Your task to perform on an android device: What's the weather today? Image 0: 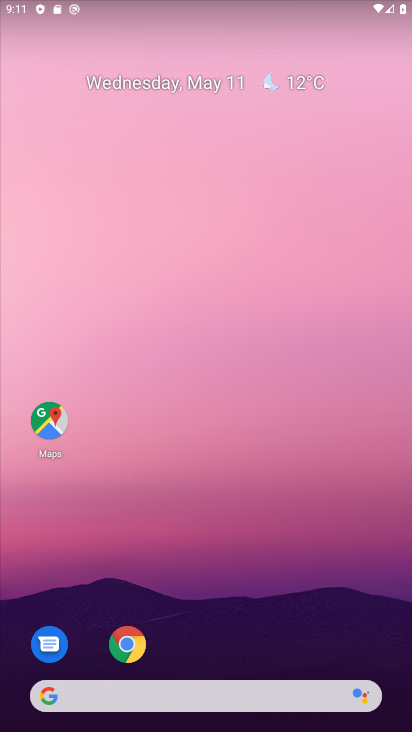
Step 0: drag from (225, 601) to (260, 217)
Your task to perform on an android device: What's the weather today? Image 1: 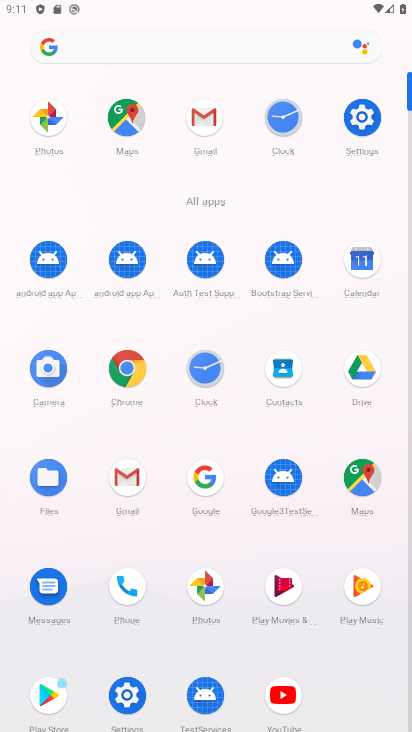
Step 1: click (371, 137)
Your task to perform on an android device: What's the weather today? Image 2: 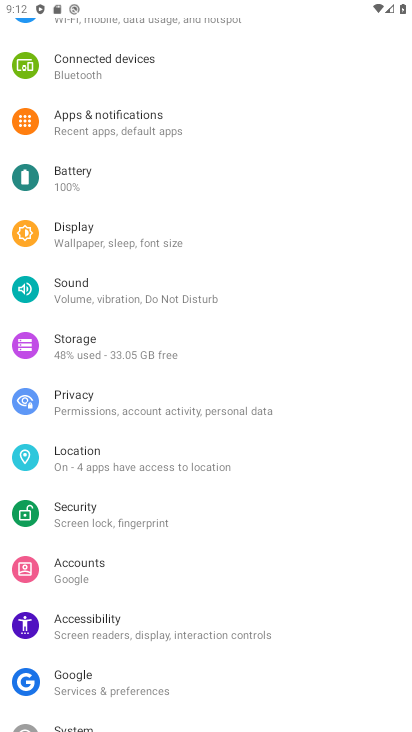
Step 2: press home button
Your task to perform on an android device: What's the weather today? Image 3: 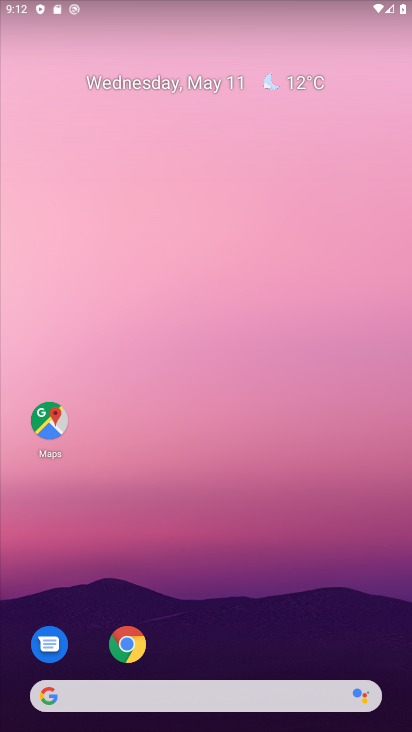
Step 3: drag from (238, 623) to (264, 28)
Your task to perform on an android device: What's the weather today? Image 4: 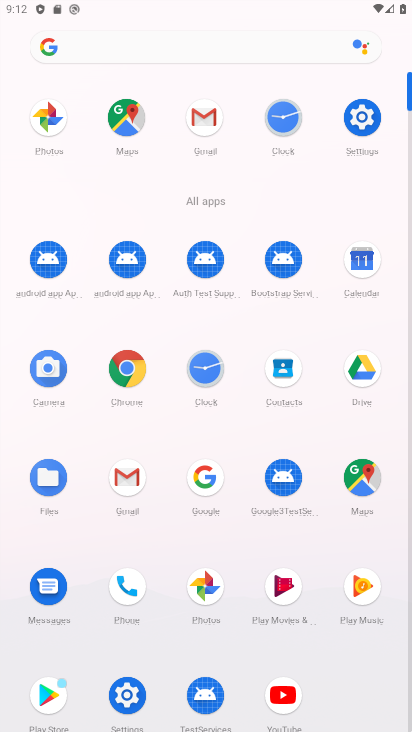
Step 4: click (220, 54)
Your task to perform on an android device: What's the weather today? Image 5: 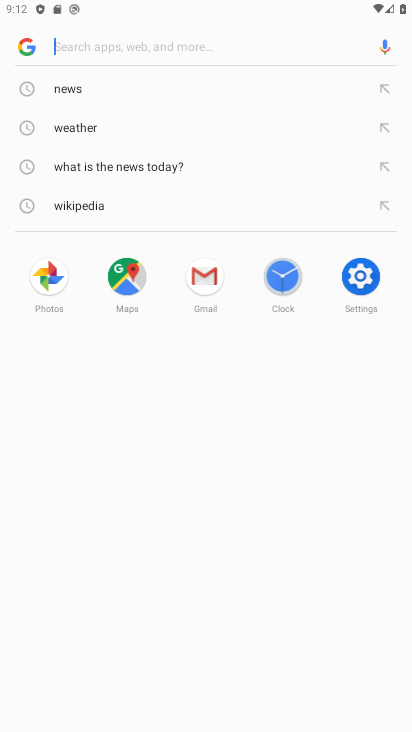
Step 5: click (168, 136)
Your task to perform on an android device: What's the weather today? Image 6: 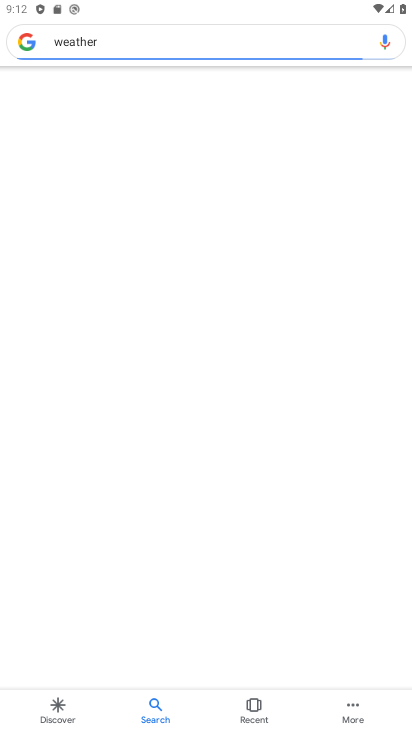
Step 6: task complete